Your task to perform on an android device: Open Google Chrome and open the bookmarks view Image 0: 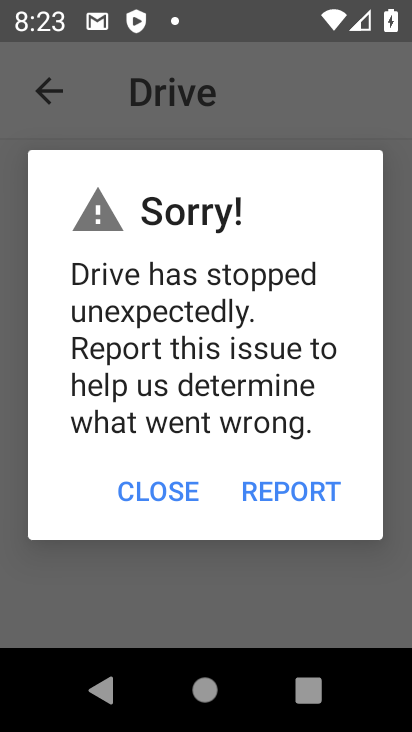
Step 0: press home button
Your task to perform on an android device: Open Google Chrome and open the bookmarks view Image 1: 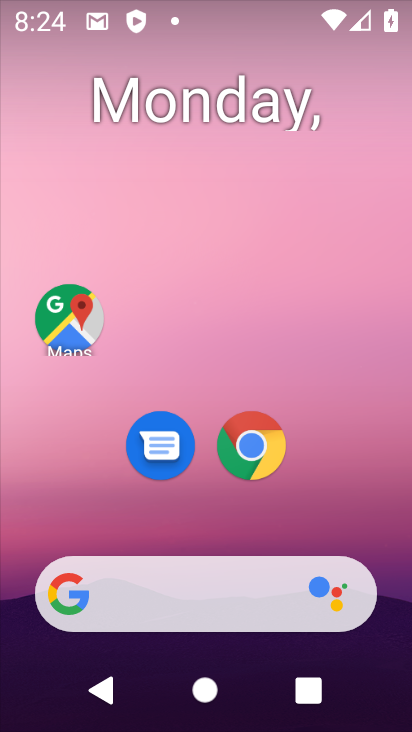
Step 1: click (255, 469)
Your task to perform on an android device: Open Google Chrome and open the bookmarks view Image 2: 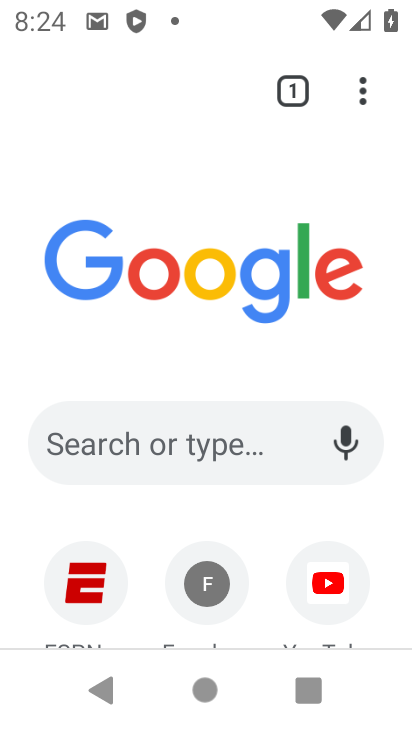
Step 2: click (335, 84)
Your task to perform on an android device: Open Google Chrome and open the bookmarks view Image 3: 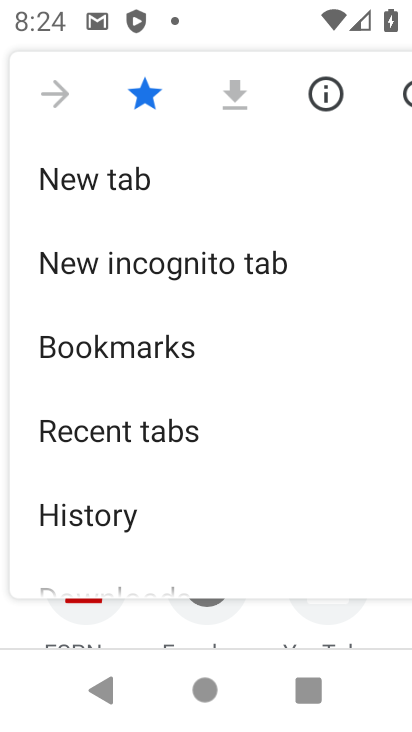
Step 3: click (203, 329)
Your task to perform on an android device: Open Google Chrome and open the bookmarks view Image 4: 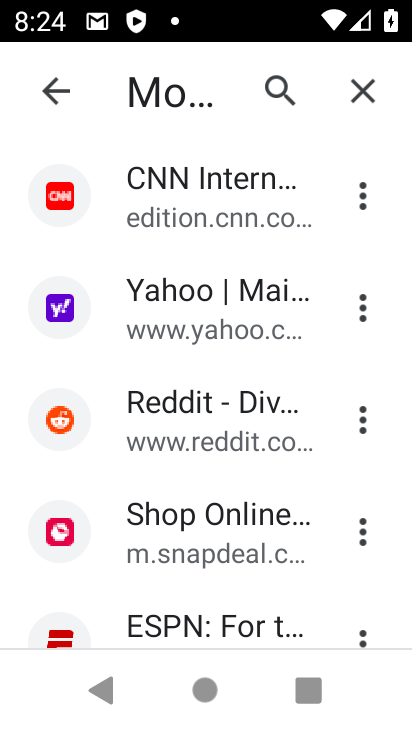
Step 4: task complete